Your task to perform on an android device: toggle airplane mode Image 0: 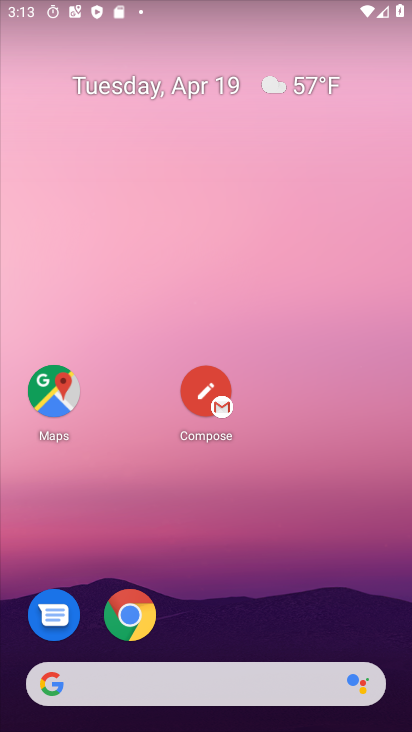
Step 0: drag from (300, 634) to (406, 684)
Your task to perform on an android device: toggle airplane mode Image 1: 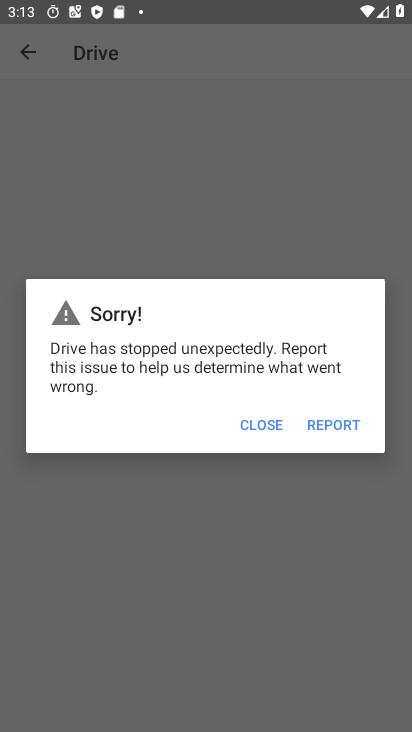
Step 1: click (257, 425)
Your task to perform on an android device: toggle airplane mode Image 2: 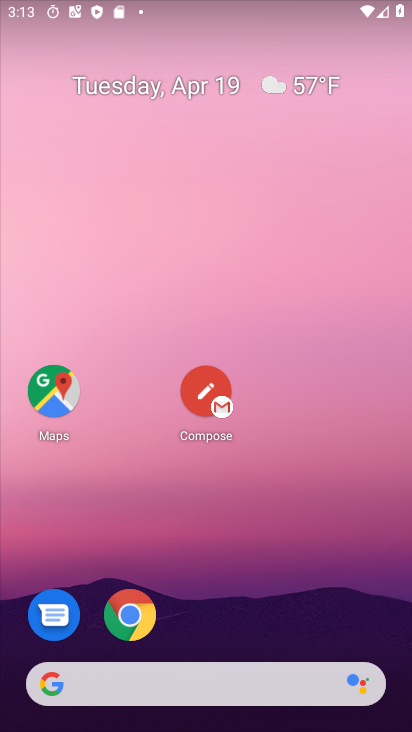
Step 2: drag from (218, 650) to (198, 149)
Your task to perform on an android device: toggle airplane mode Image 3: 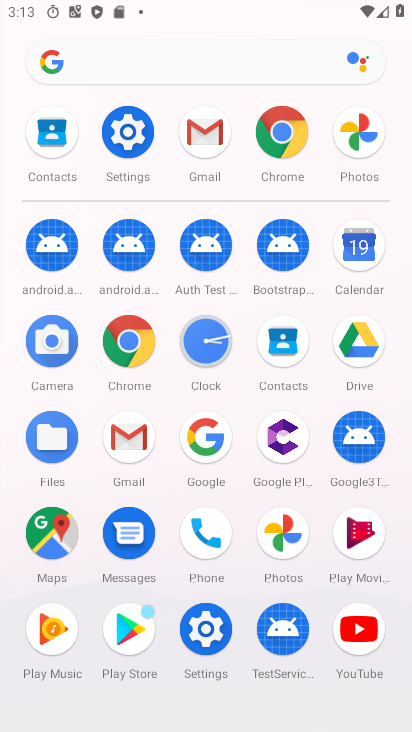
Step 3: click (203, 633)
Your task to perform on an android device: toggle airplane mode Image 4: 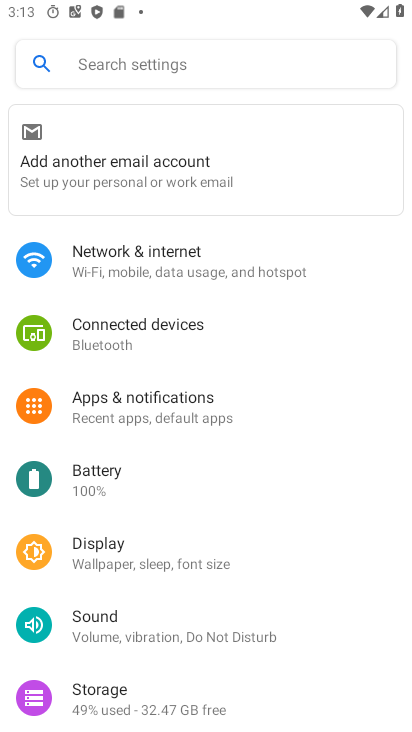
Step 4: click (175, 263)
Your task to perform on an android device: toggle airplane mode Image 5: 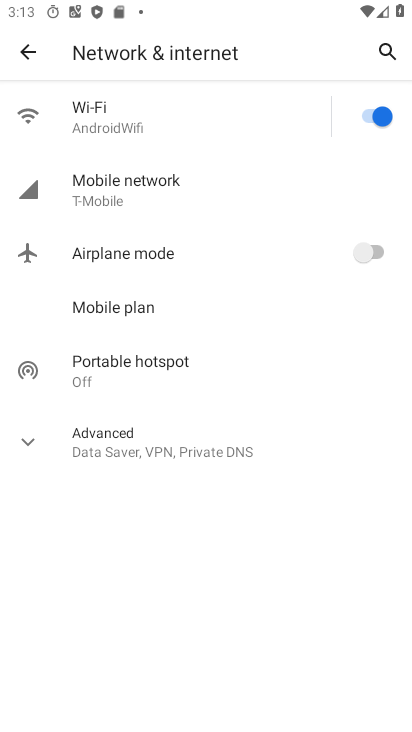
Step 5: click (375, 253)
Your task to perform on an android device: toggle airplane mode Image 6: 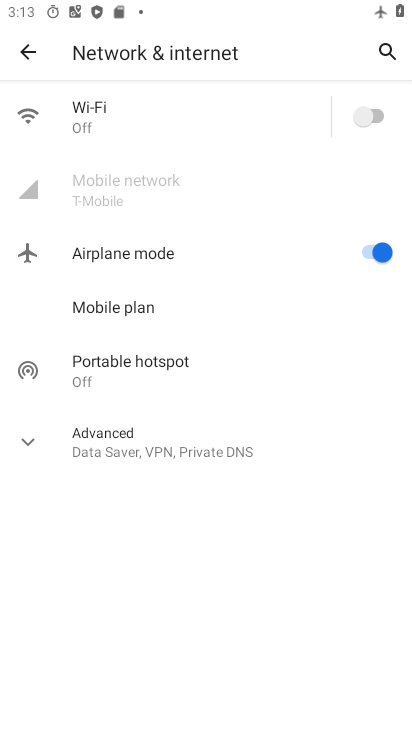
Step 6: task complete